Your task to perform on an android device: Go to privacy settings Image 0: 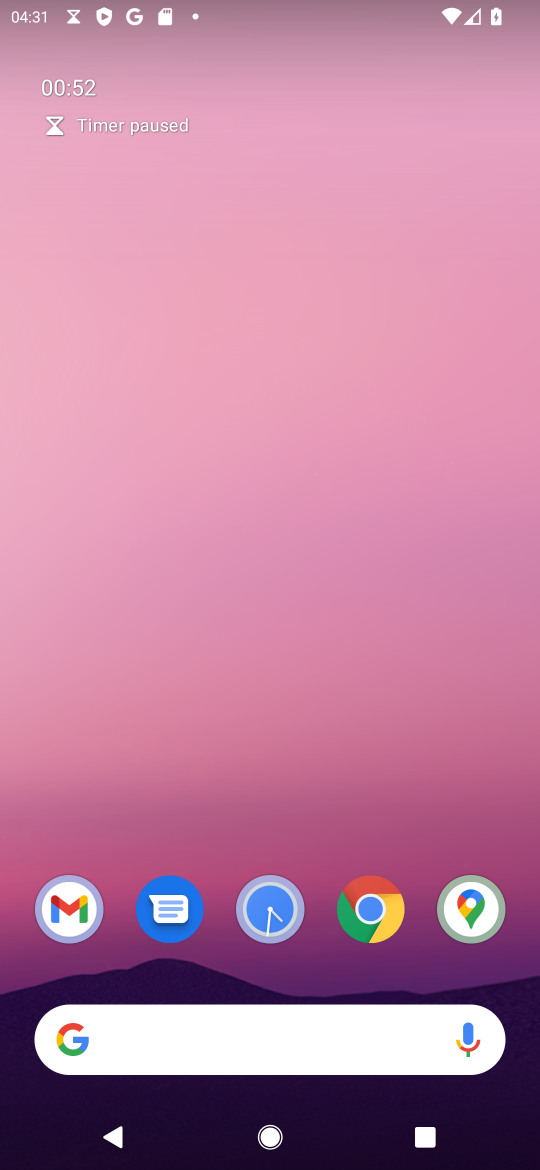
Step 0: drag from (216, 1056) to (401, 194)
Your task to perform on an android device: Go to privacy settings Image 1: 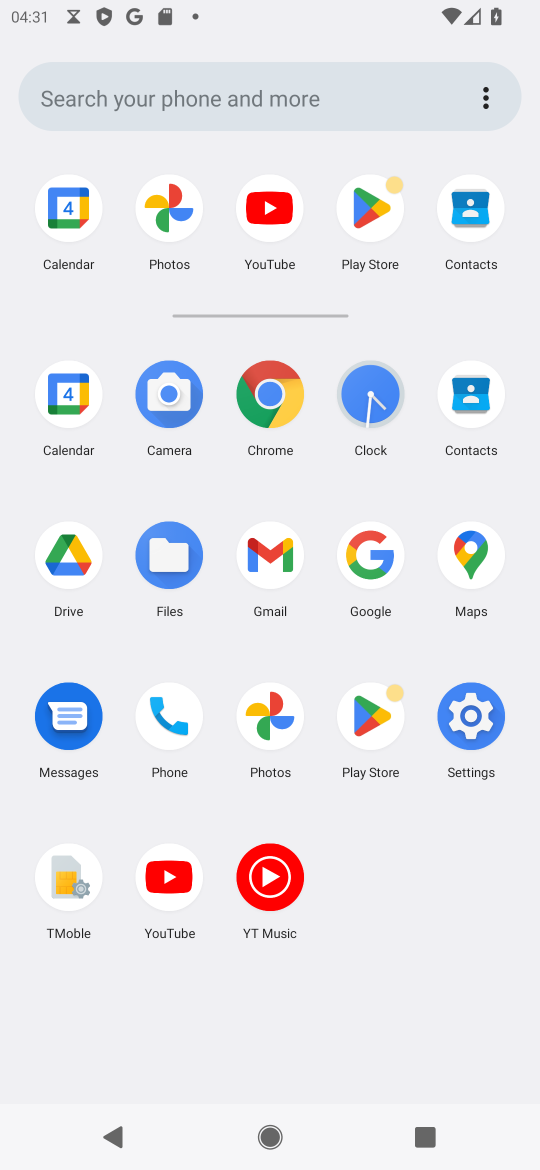
Step 1: click (470, 735)
Your task to perform on an android device: Go to privacy settings Image 2: 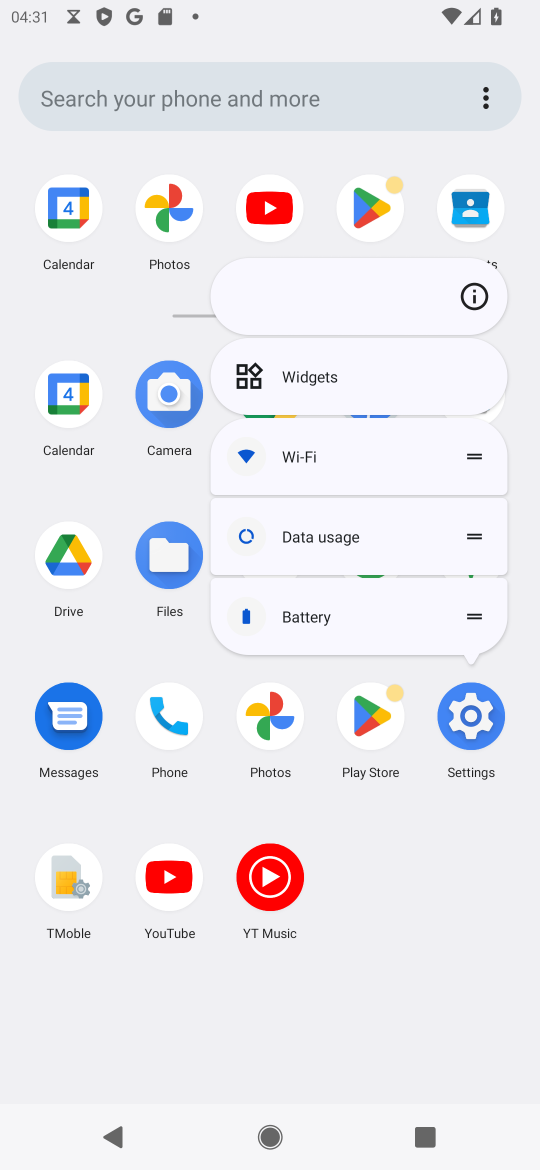
Step 2: click (474, 723)
Your task to perform on an android device: Go to privacy settings Image 3: 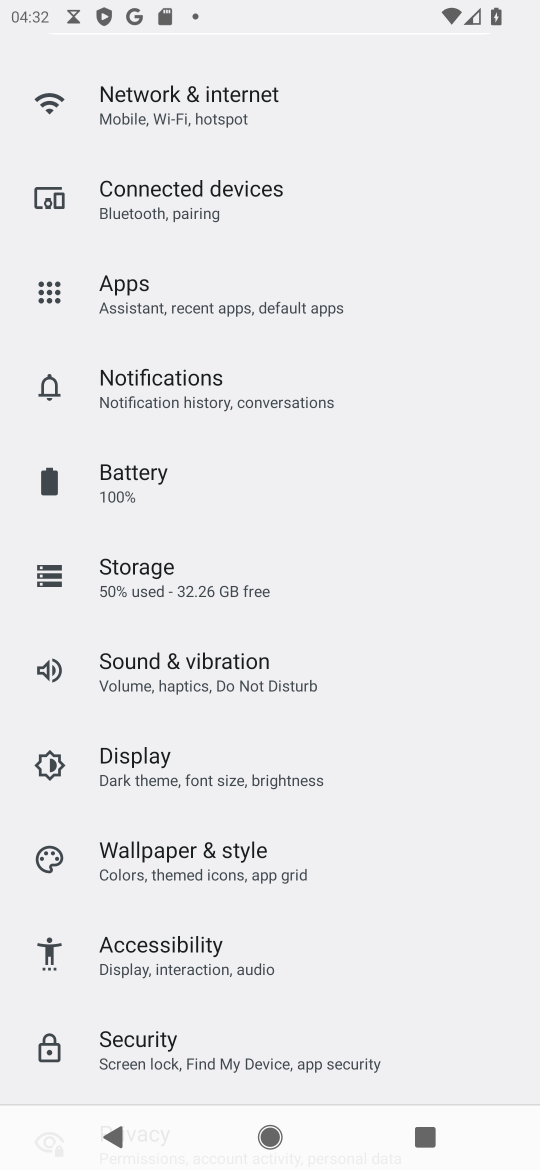
Step 3: drag from (464, 275) to (376, 831)
Your task to perform on an android device: Go to privacy settings Image 4: 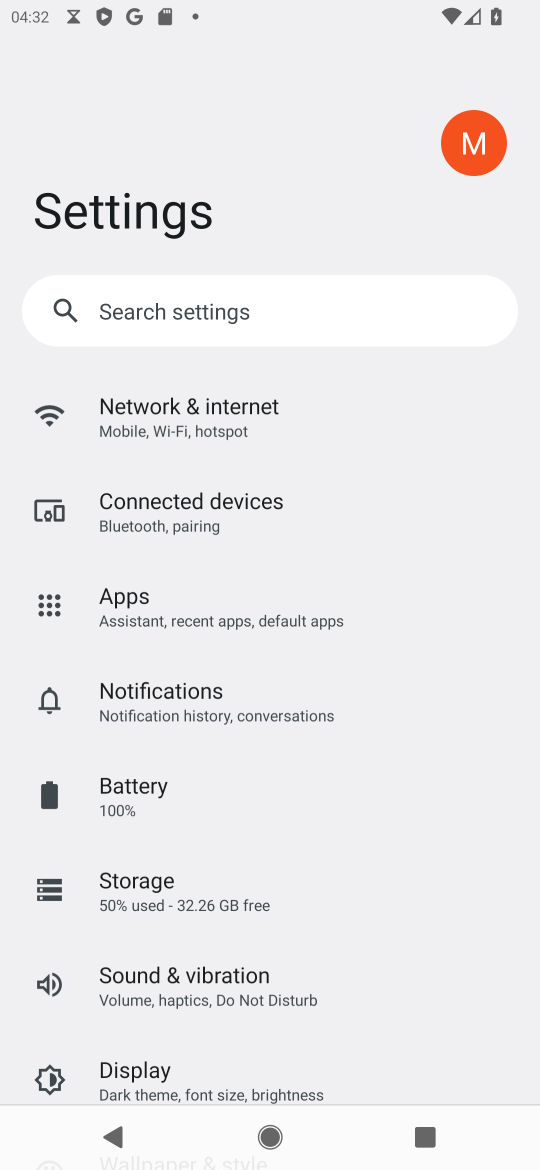
Step 4: drag from (293, 919) to (409, 406)
Your task to perform on an android device: Go to privacy settings Image 5: 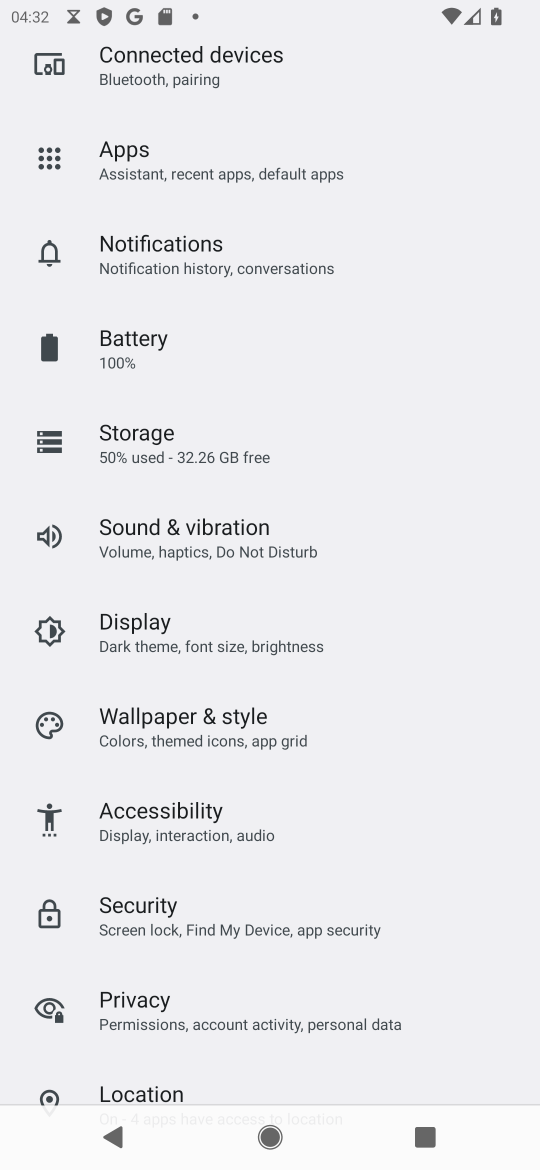
Step 5: click (169, 1005)
Your task to perform on an android device: Go to privacy settings Image 6: 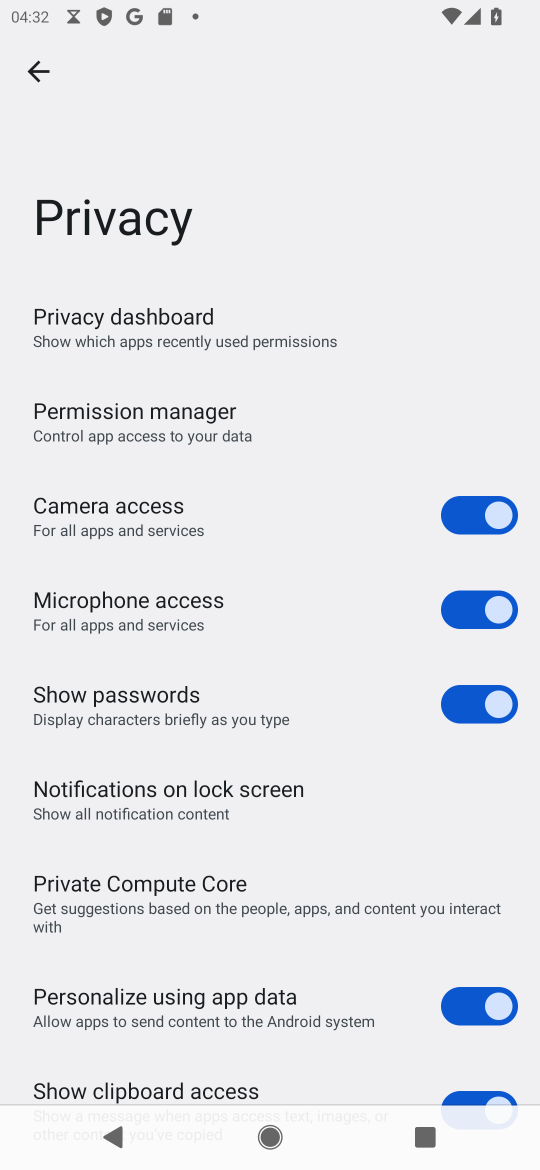
Step 6: task complete